Your task to perform on an android device: When is my next meeting? Image 0: 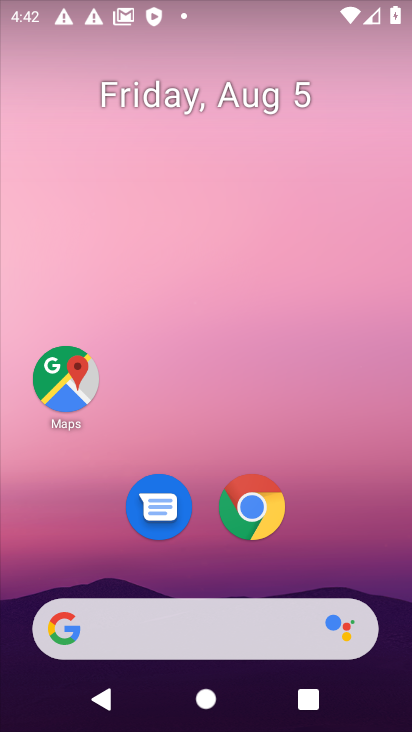
Step 0: drag from (197, 601) to (176, 183)
Your task to perform on an android device: When is my next meeting? Image 1: 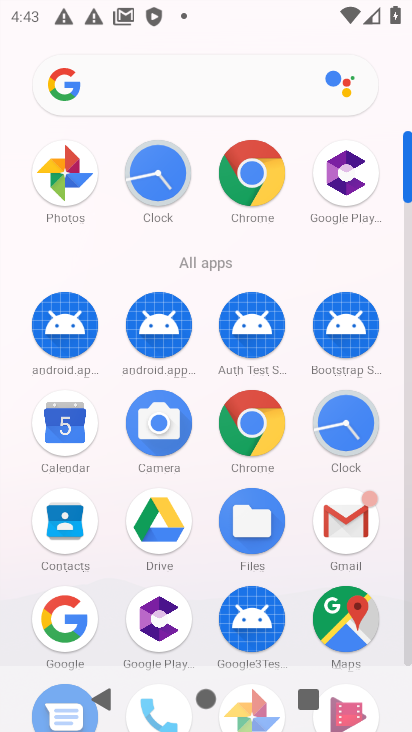
Step 1: click (78, 418)
Your task to perform on an android device: When is my next meeting? Image 2: 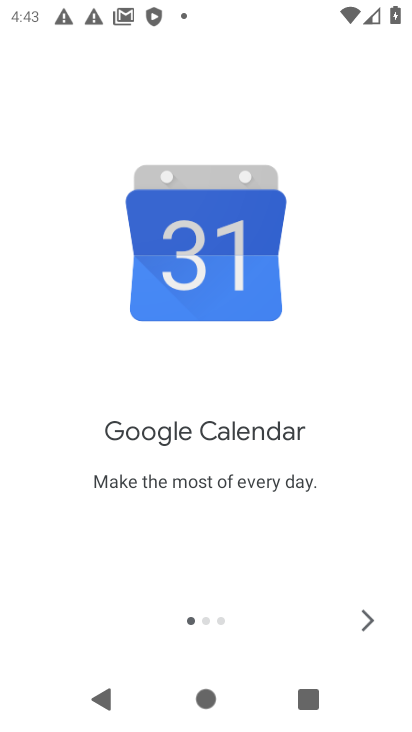
Step 2: click (358, 618)
Your task to perform on an android device: When is my next meeting? Image 3: 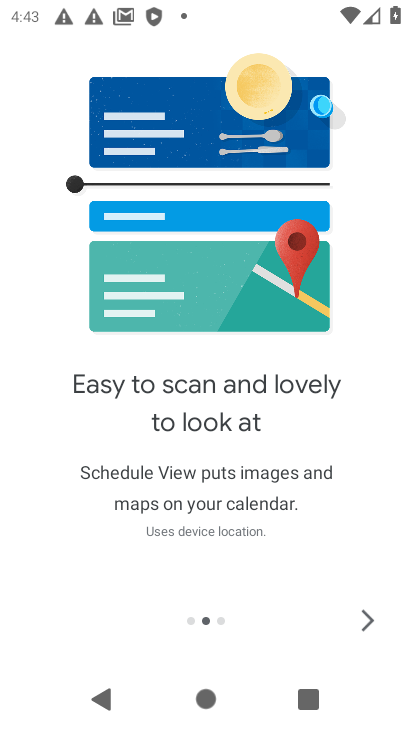
Step 3: click (358, 618)
Your task to perform on an android device: When is my next meeting? Image 4: 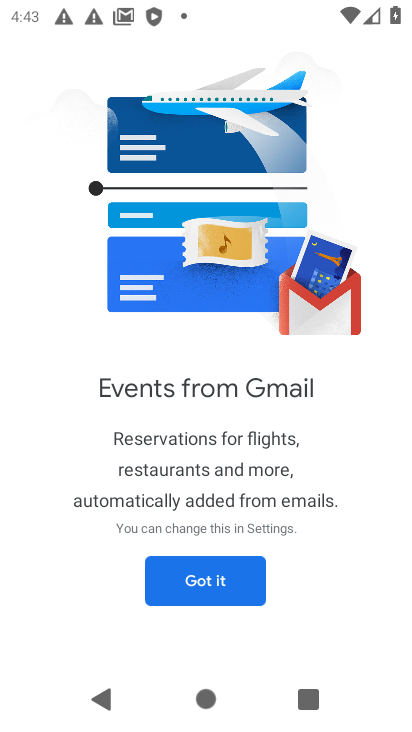
Step 4: click (189, 578)
Your task to perform on an android device: When is my next meeting? Image 5: 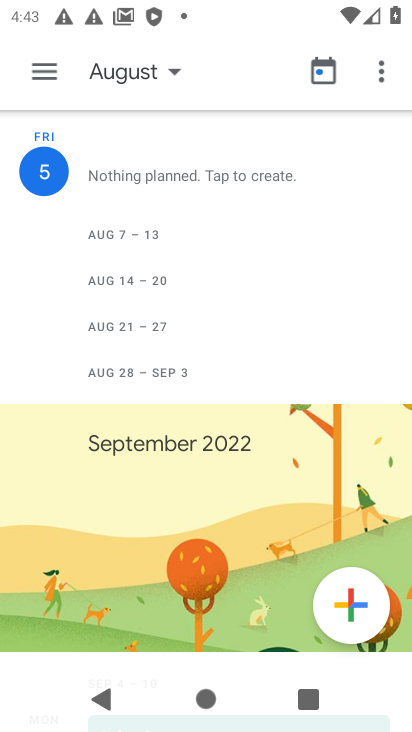
Step 5: task complete